Your task to perform on an android device: empty trash in google photos Image 0: 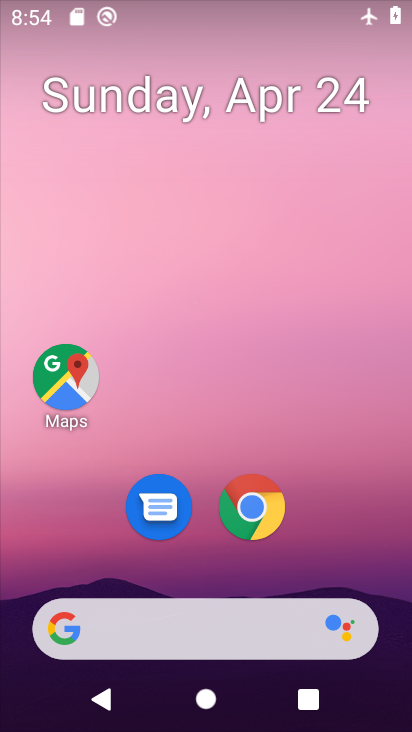
Step 0: drag from (345, 475) to (339, 63)
Your task to perform on an android device: empty trash in google photos Image 1: 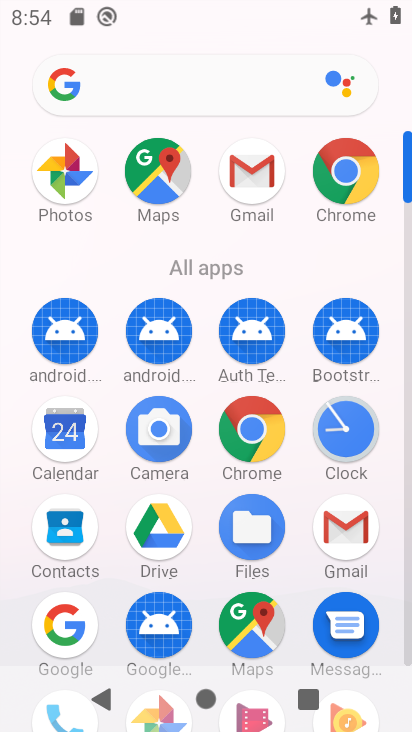
Step 1: click (71, 192)
Your task to perform on an android device: empty trash in google photos Image 2: 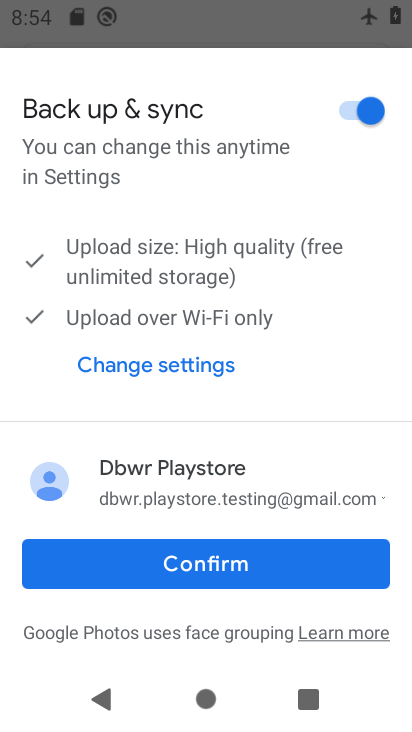
Step 2: click (209, 551)
Your task to perform on an android device: empty trash in google photos Image 3: 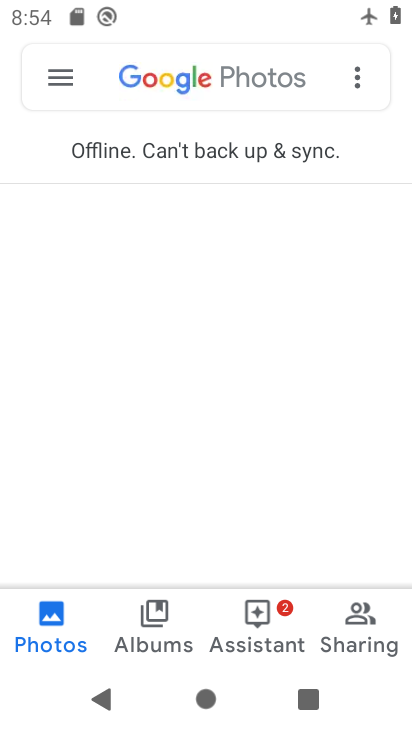
Step 3: click (56, 99)
Your task to perform on an android device: empty trash in google photos Image 4: 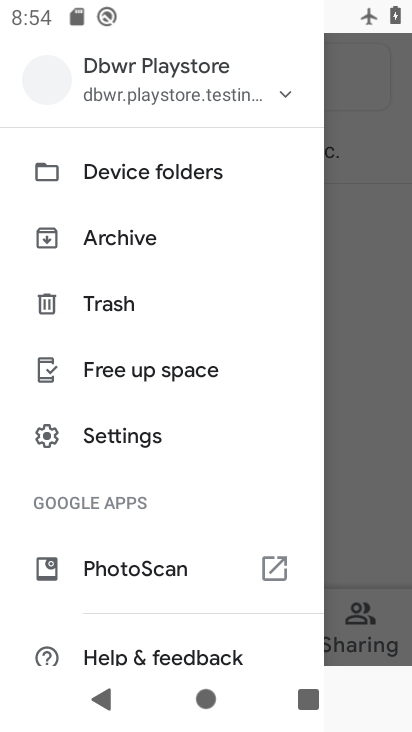
Step 4: drag from (136, 546) to (90, 71)
Your task to perform on an android device: empty trash in google photos Image 5: 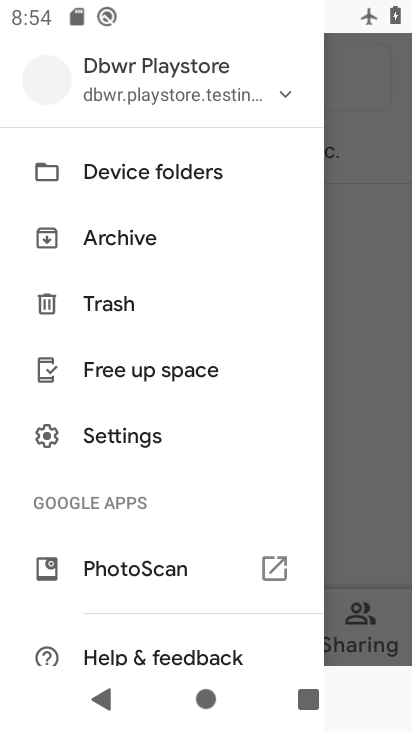
Step 5: click (129, 295)
Your task to perform on an android device: empty trash in google photos Image 6: 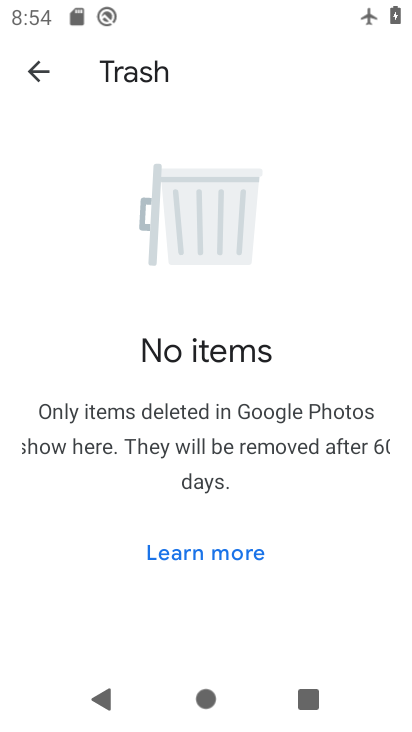
Step 6: task complete